Your task to perform on an android device: open chrome and create a bookmark for the current page Image 0: 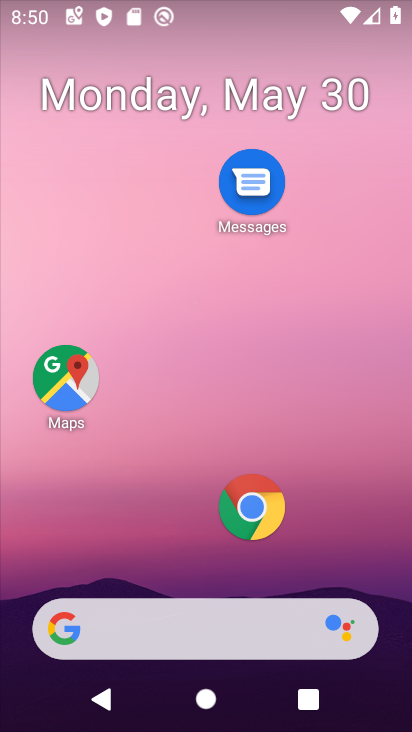
Step 0: drag from (195, 527) to (144, 24)
Your task to perform on an android device: open chrome and create a bookmark for the current page Image 1: 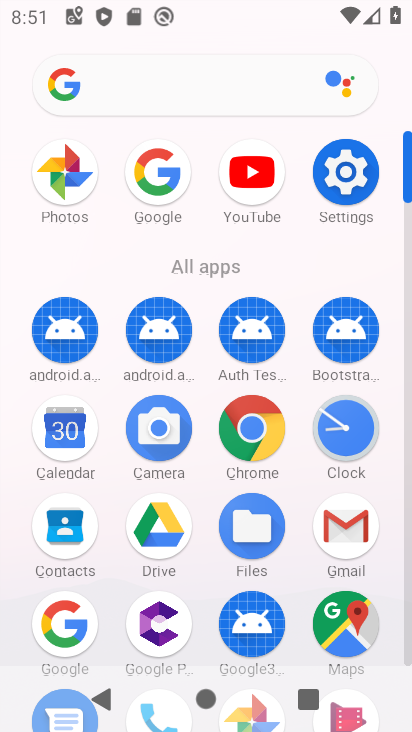
Step 1: drag from (198, 602) to (181, 158)
Your task to perform on an android device: open chrome and create a bookmark for the current page Image 2: 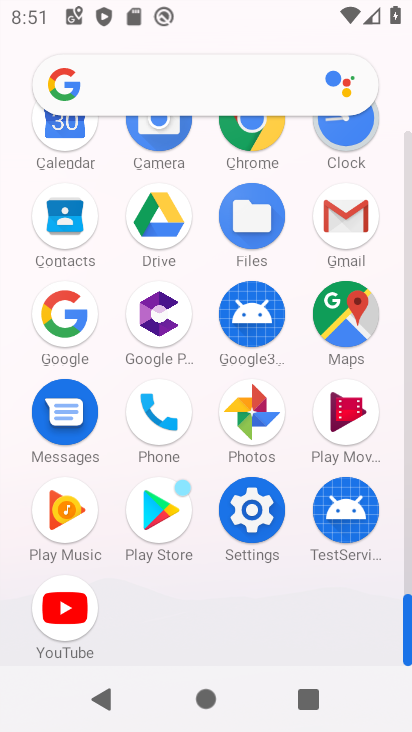
Step 2: drag from (285, 238) to (263, 562)
Your task to perform on an android device: open chrome and create a bookmark for the current page Image 3: 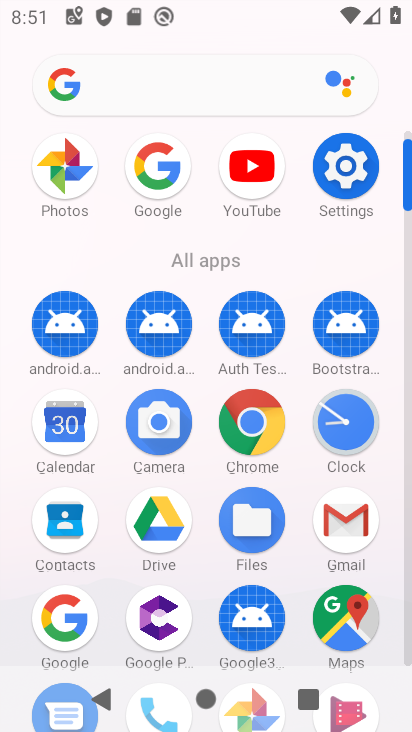
Step 3: click (256, 417)
Your task to perform on an android device: open chrome and create a bookmark for the current page Image 4: 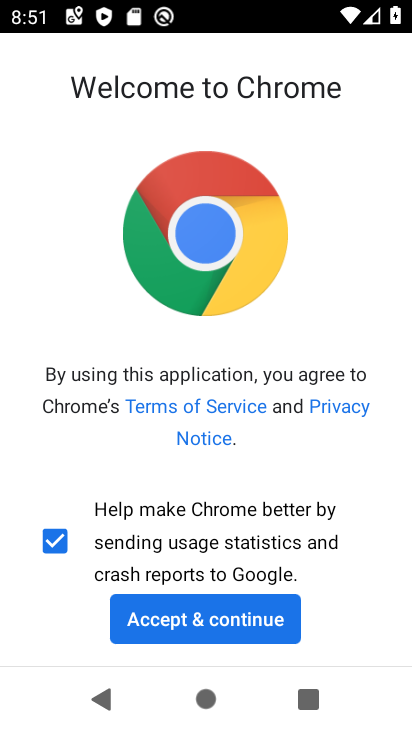
Step 4: click (201, 611)
Your task to perform on an android device: open chrome and create a bookmark for the current page Image 5: 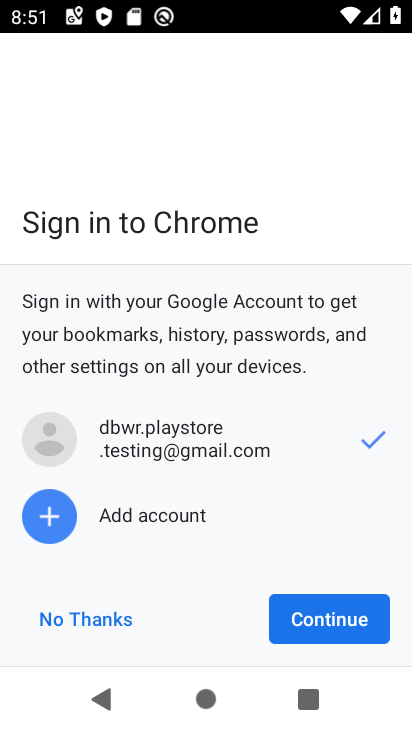
Step 5: click (300, 621)
Your task to perform on an android device: open chrome and create a bookmark for the current page Image 6: 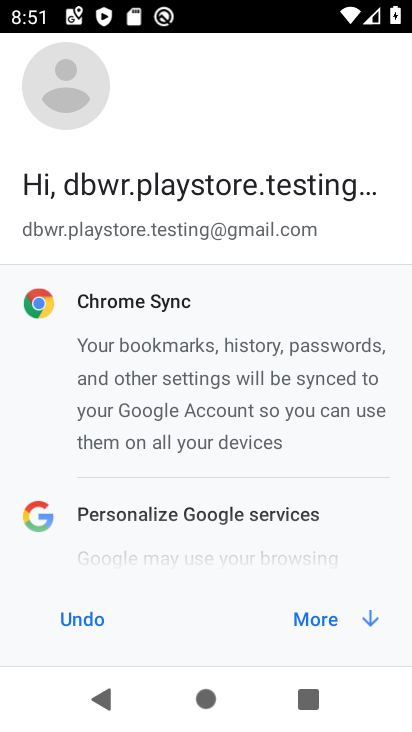
Step 6: click (311, 626)
Your task to perform on an android device: open chrome and create a bookmark for the current page Image 7: 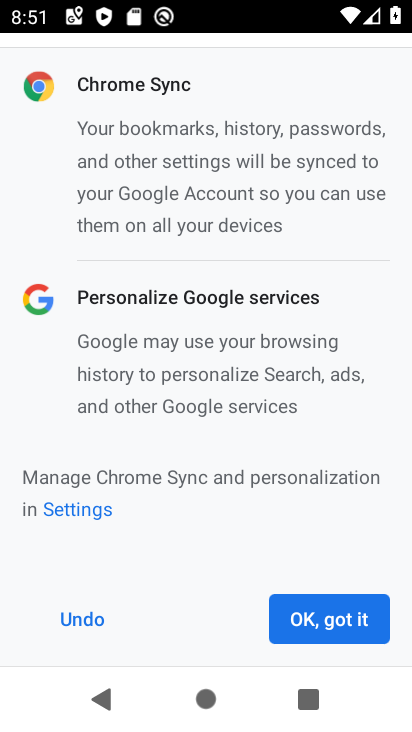
Step 7: click (325, 629)
Your task to perform on an android device: open chrome and create a bookmark for the current page Image 8: 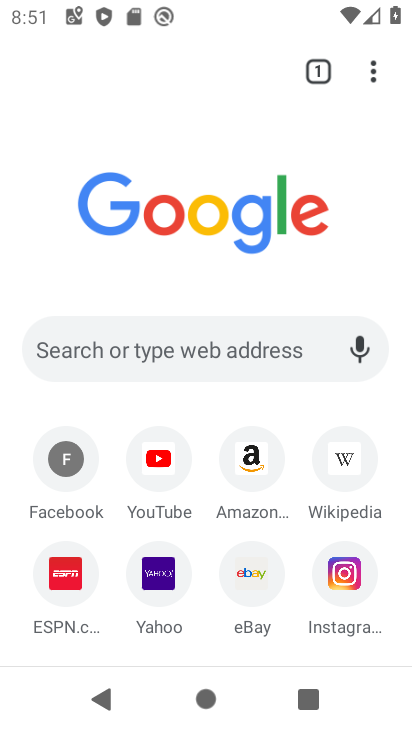
Step 8: click (371, 74)
Your task to perform on an android device: open chrome and create a bookmark for the current page Image 9: 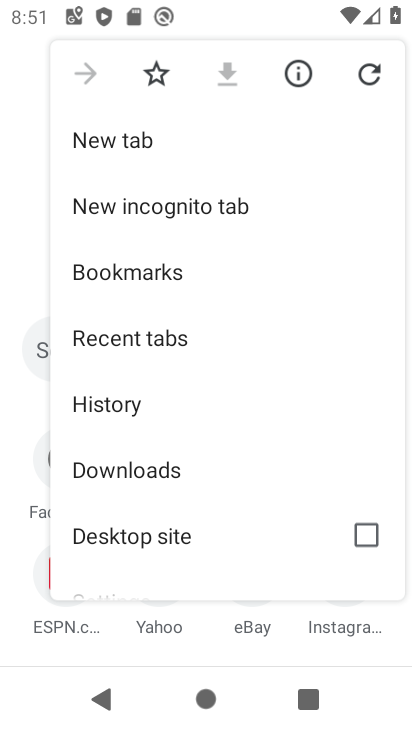
Step 9: click (155, 80)
Your task to perform on an android device: open chrome and create a bookmark for the current page Image 10: 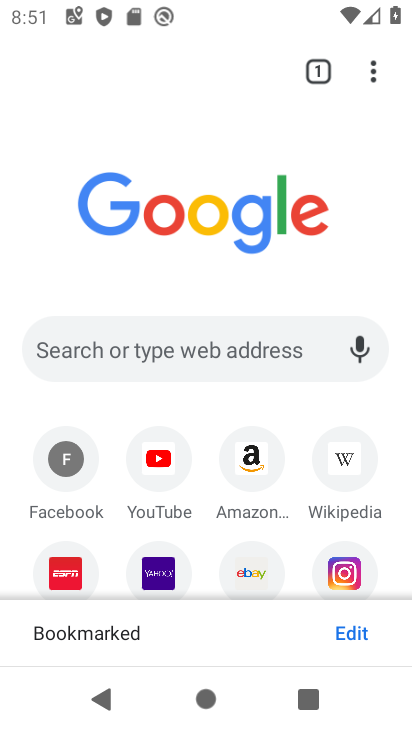
Step 10: task complete